Your task to perform on an android device: open app "PlayWell" Image 0: 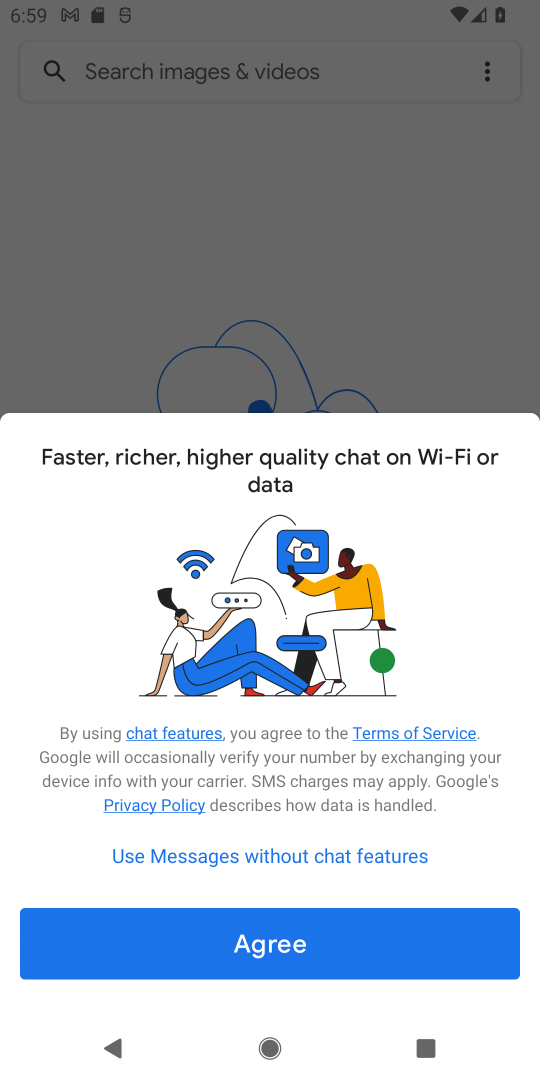
Step 0: press home button
Your task to perform on an android device: open app "PlayWell" Image 1: 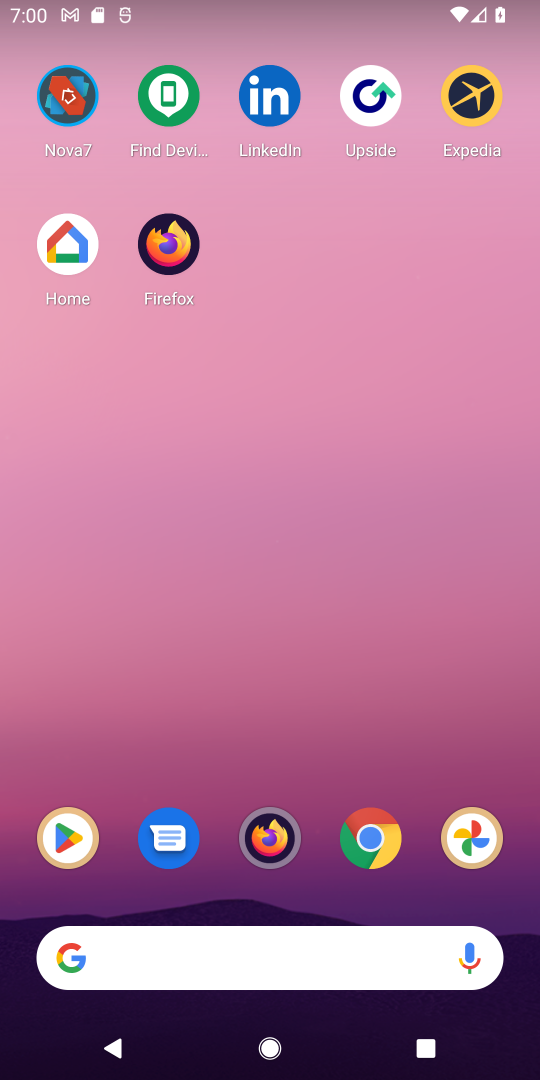
Step 1: click (72, 845)
Your task to perform on an android device: open app "PlayWell" Image 2: 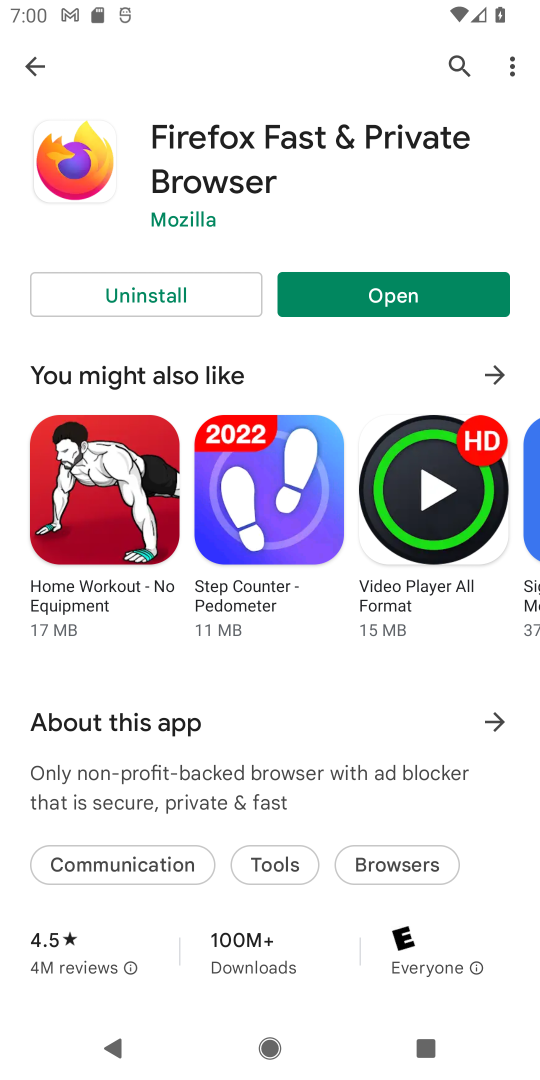
Step 2: click (459, 62)
Your task to perform on an android device: open app "PlayWell" Image 3: 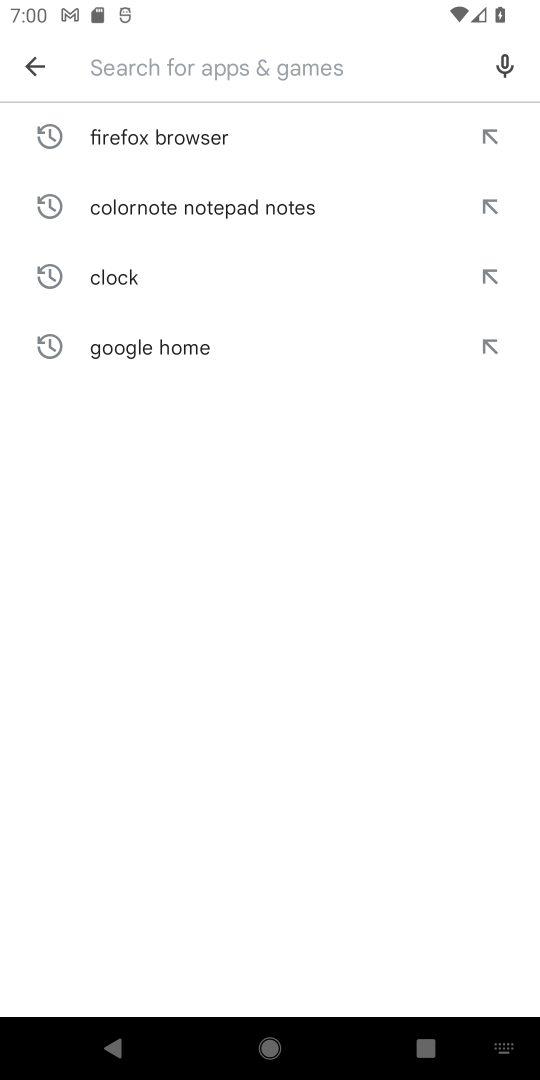
Step 3: type "playwell"
Your task to perform on an android device: open app "PlayWell" Image 4: 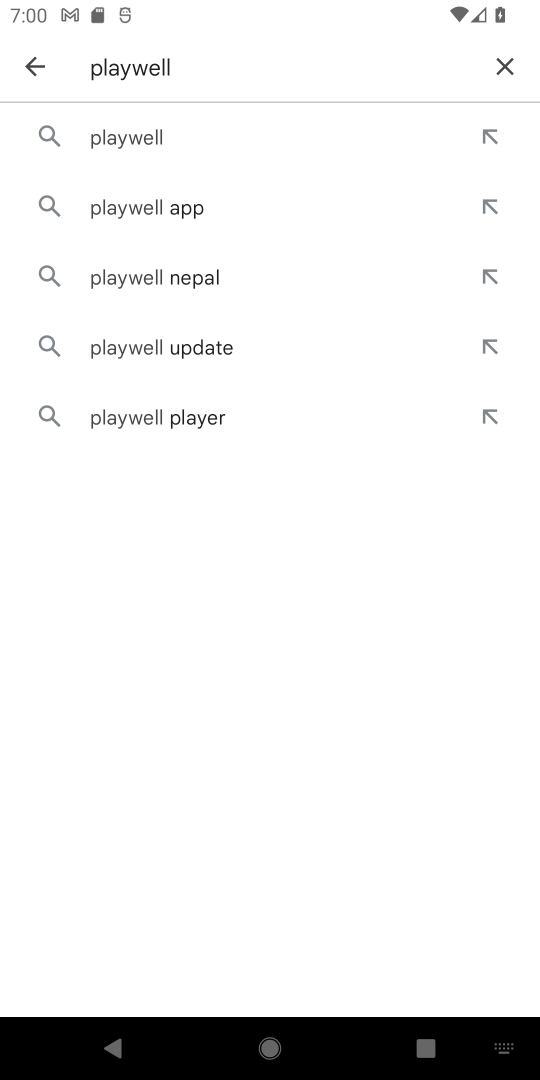
Step 4: click (218, 128)
Your task to perform on an android device: open app "PlayWell" Image 5: 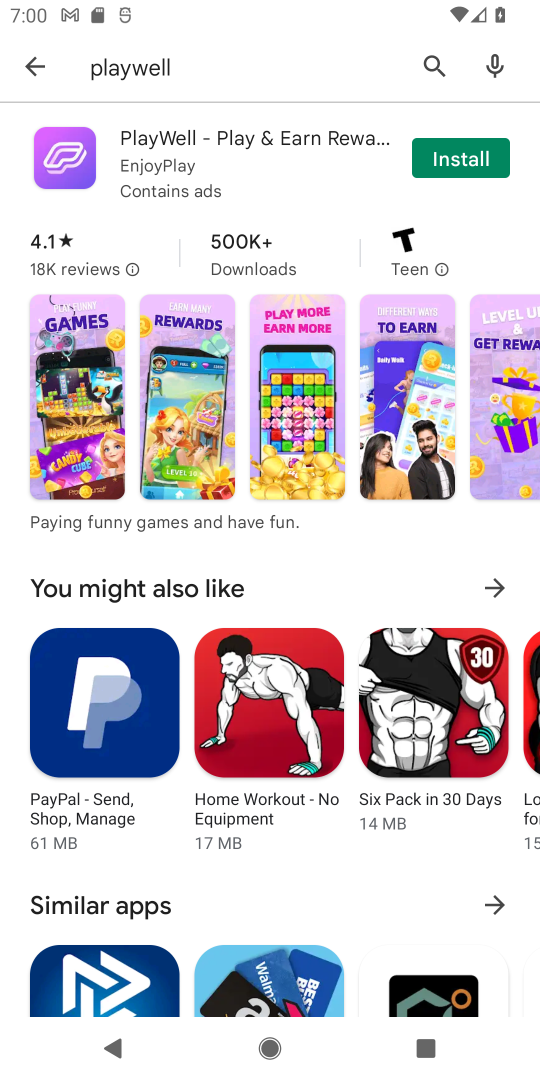
Step 5: click (245, 120)
Your task to perform on an android device: open app "PlayWell" Image 6: 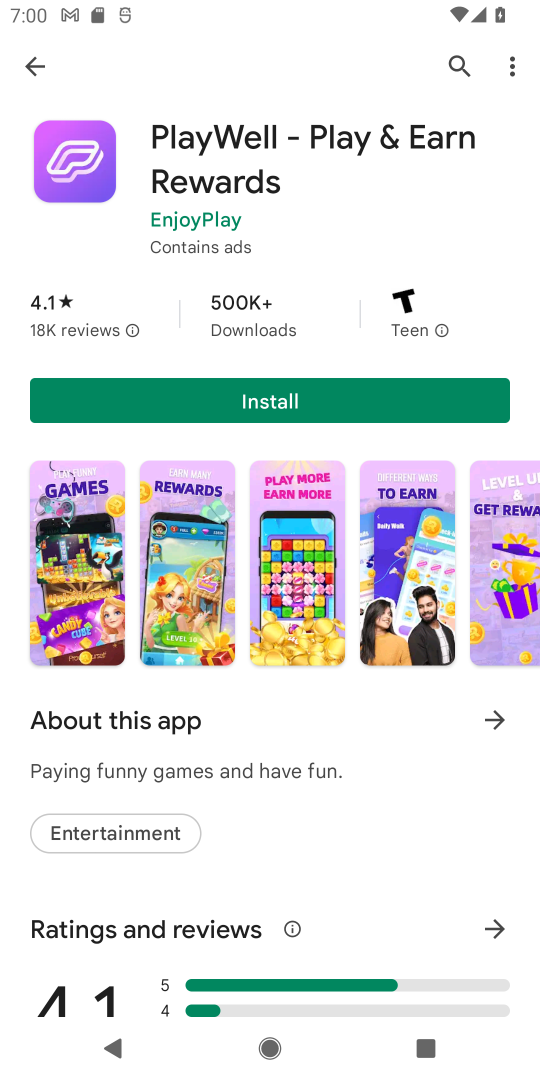
Step 6: task complete